Your task to perform on an android device: Do I have any events today? Image 0: 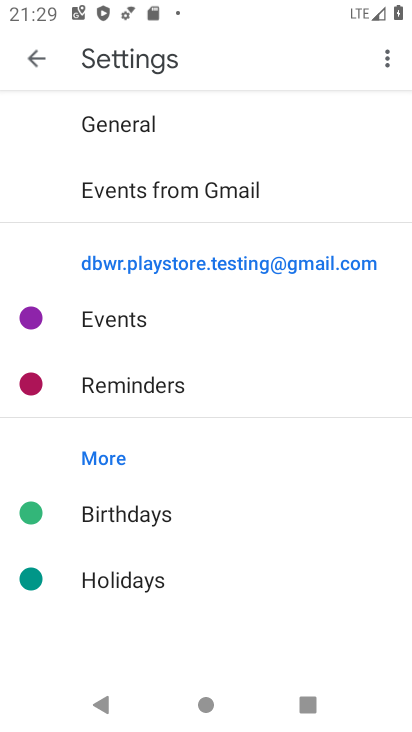
Step 0: press home button
Your task to perform on an android device: Do I have any events today? Image 1: 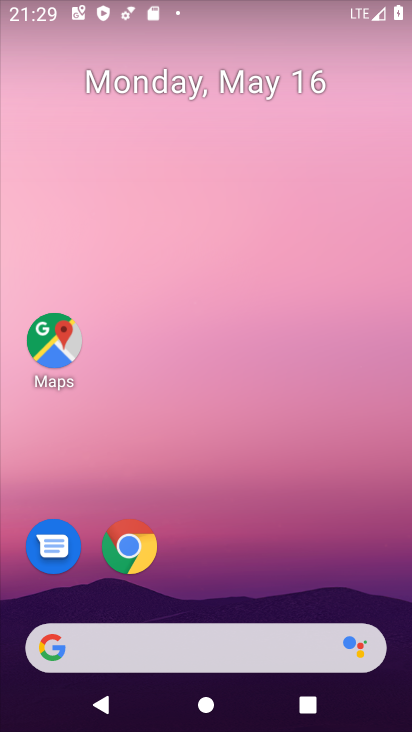
Step 1: drag from (255, 674) to (236, 106)
Your task to perform on an android device: Do I have any events today? Image 2: 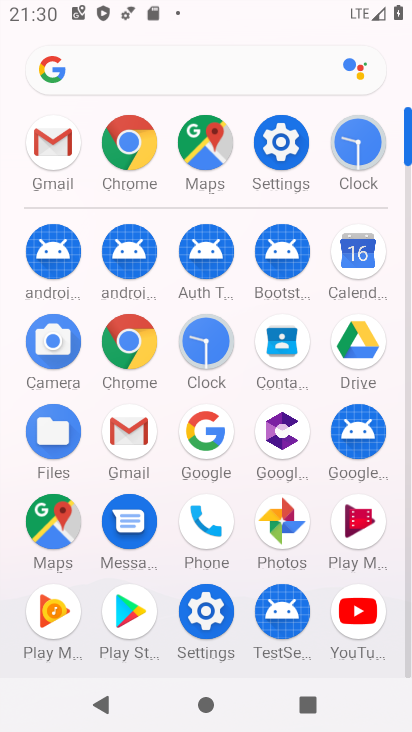
Step 2: click (343, 270)
Your task to perform on an android device: Do I have any events today? Image 3: 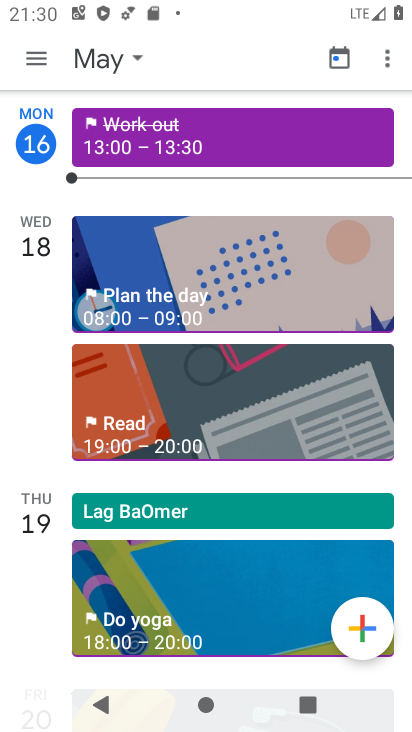
Step 3: click (343, 270)
Your task to perform on an android device: Do I have any events today? Image 4: 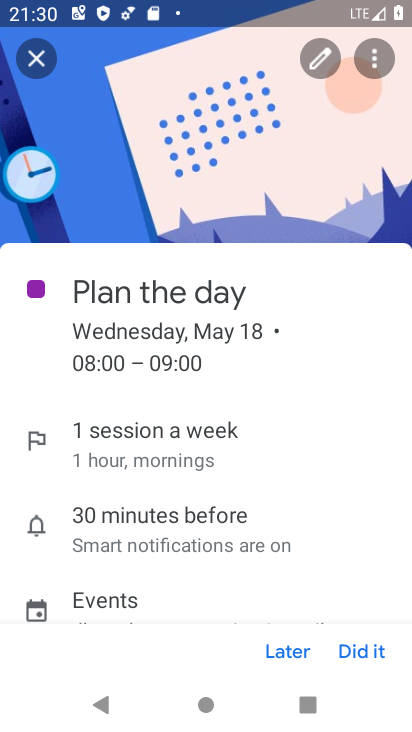
Step 4: press back button
Your task to perform on an android device: Do I have any events today? Image 5: 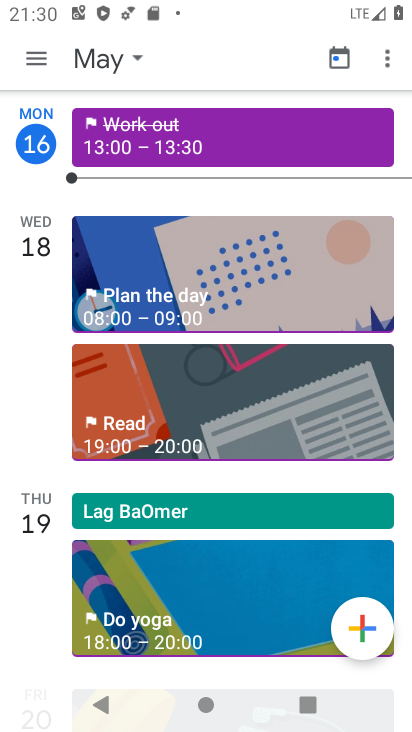
Step 5: click (127, 132)
Your task to perform on an android device: Do I have any events today? Image 6: 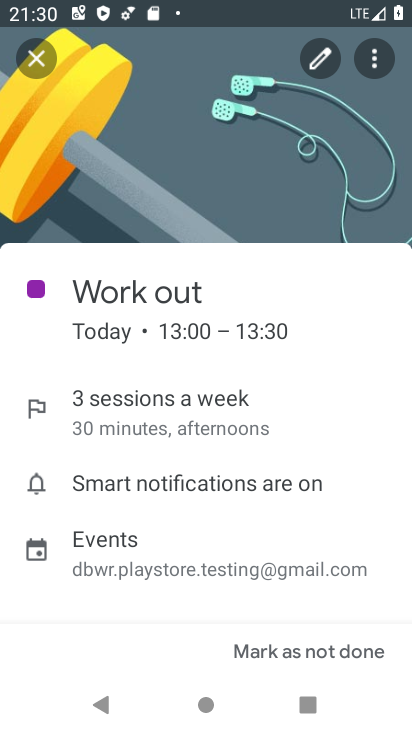
Step 6: task complete